Your task to perform on an android device: Go to settings Image 0: 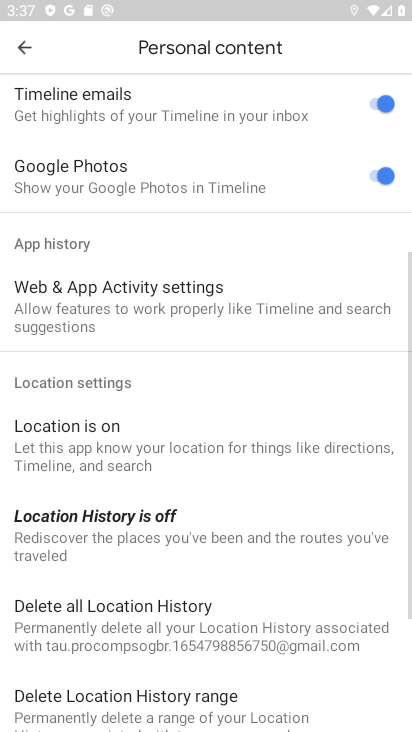
Step 0: press home button
Your task to perform on an android device: Go to settings Image 1: 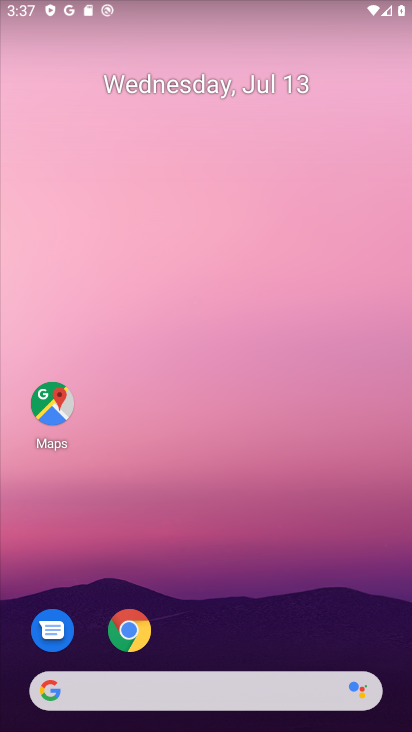
Step 1: drag from (212, 563) to (260, 26)
Your task to perform on an android device: Go to settings Image 2: 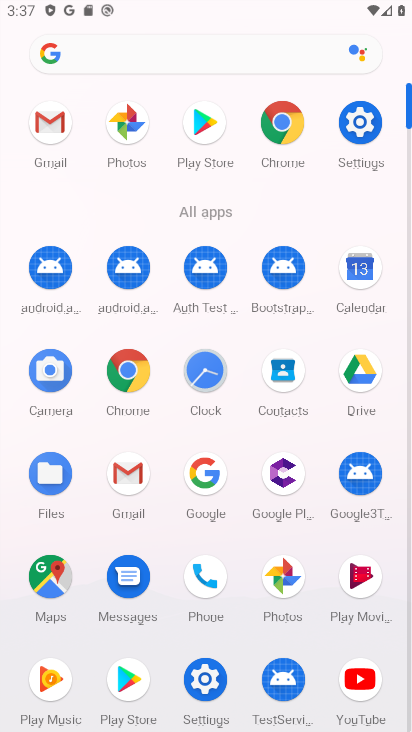
Step 2: click (358, 138)
Your task to perform on an android device: Go to settings Image 3: 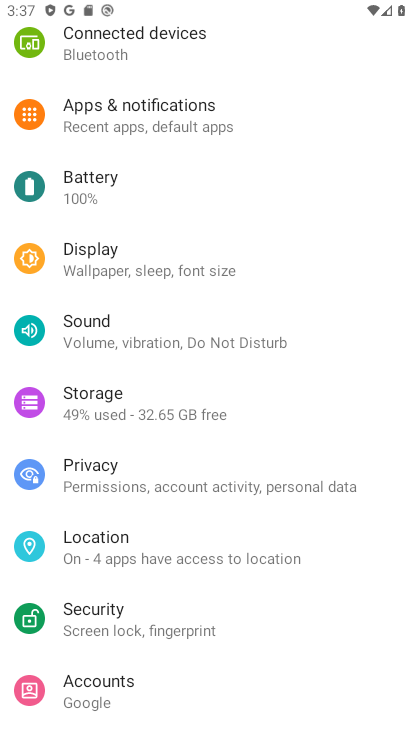
Step 3: task complete